Your task to perform on an android device: open app "Move to iOS" (install if not already installed), go to login, and select forgot password Image 0: 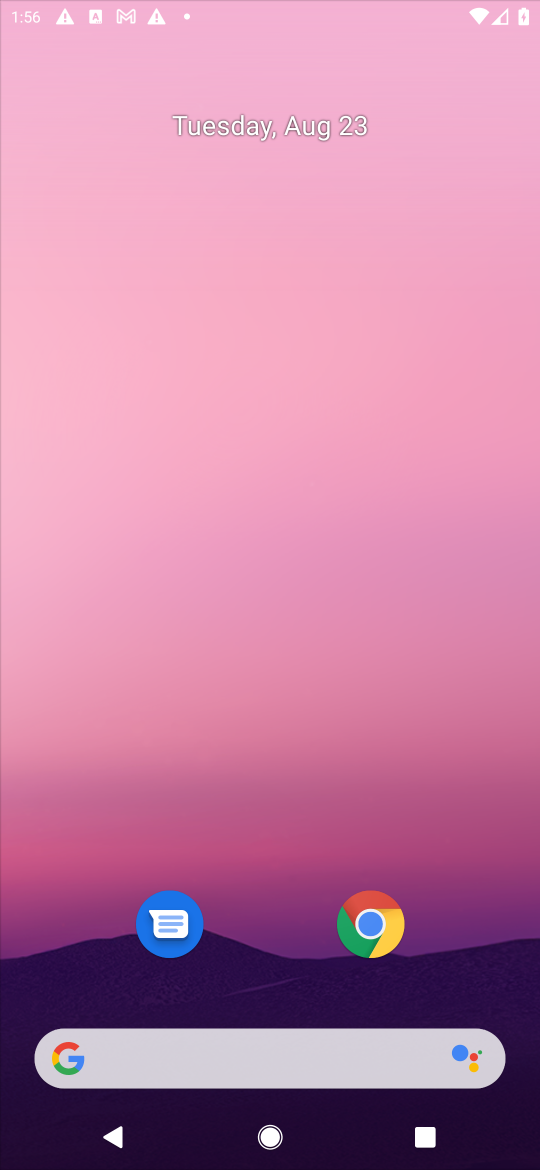
Step 0: press home button
Your task to perform on an android device: open app "Move to iOS" (install if not already installed), go to login, and select forgot password Image 1: 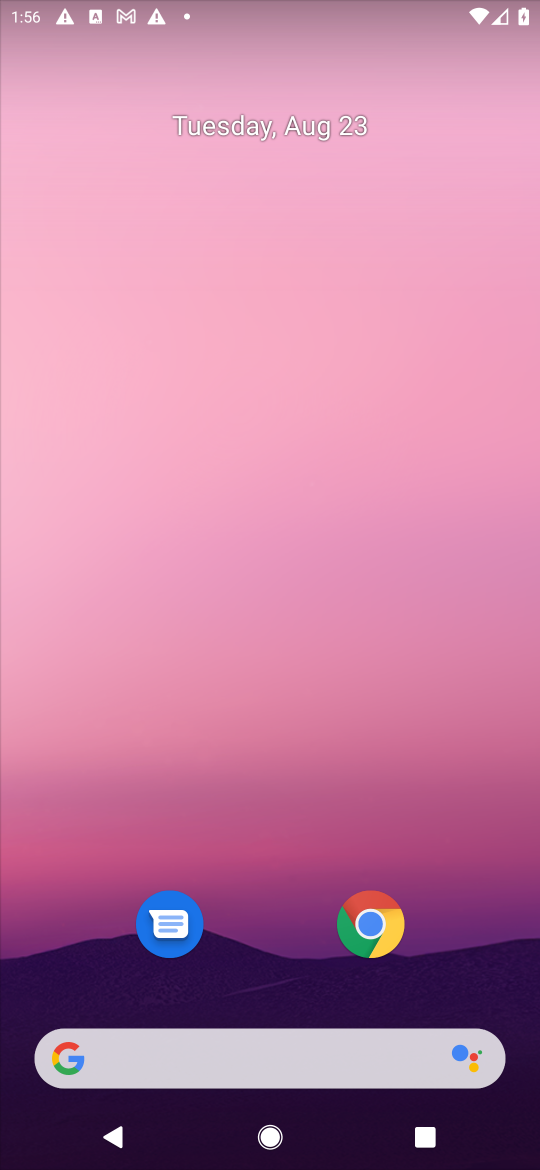
Step 1: drag from (467, 985) to (444, 149)
Your task to perform on an android device: open app "Move to iOS" (install if not already installed), go to login, and select forgot password Image 2: 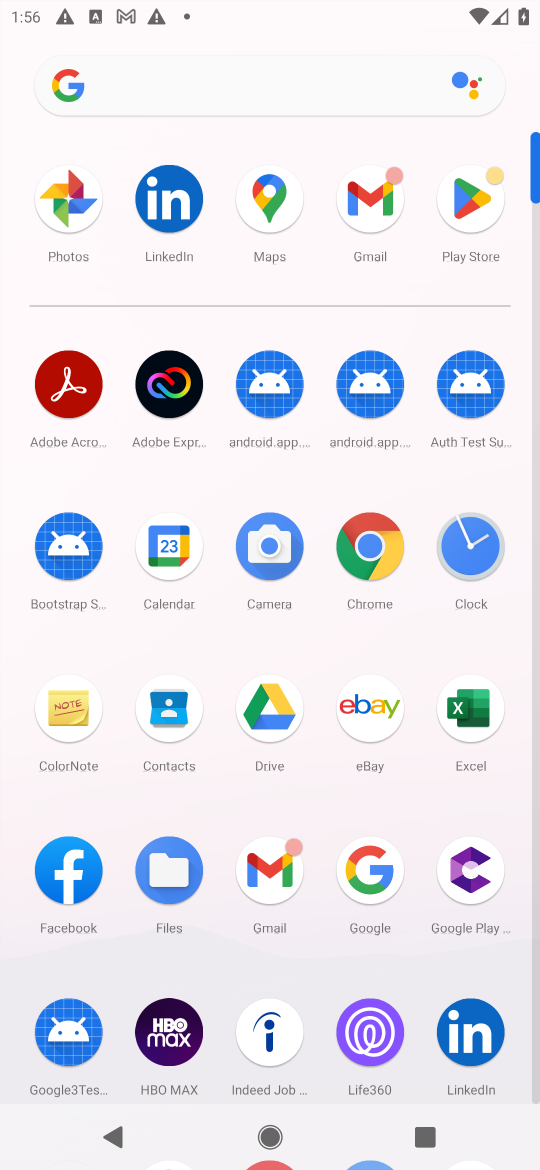
Step 2: click (477, 201)
Your task to perform on an android device: open app "Move to iOS" (install if not already installed), go to login, and select forgot password Image 3: 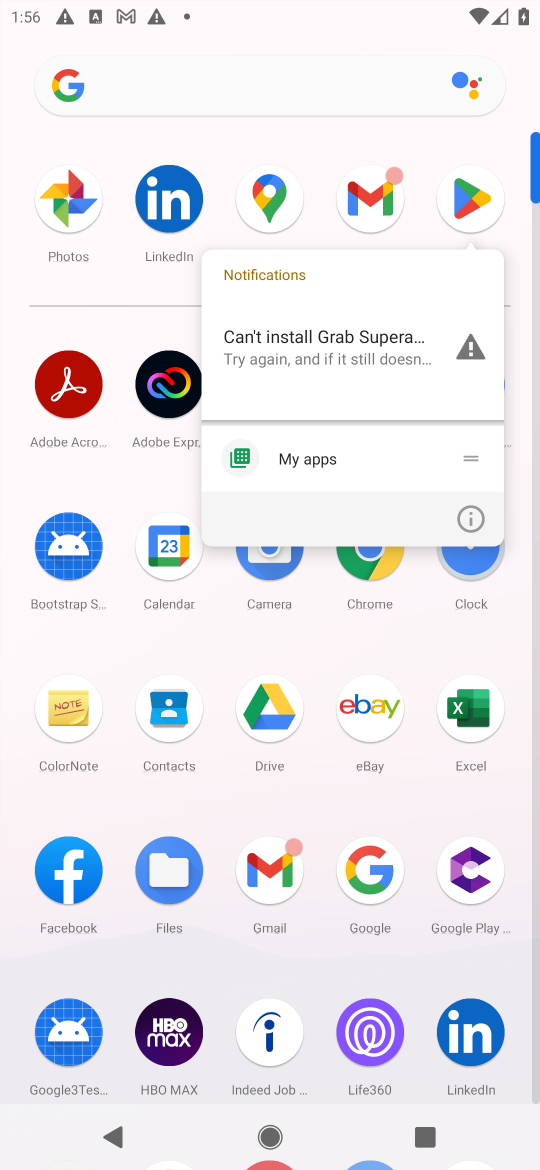
Step 3: click (463, 216)
Your task to perform on an android device: open app "Move to iOS" (install if not already installed), go to login, and select forgot password Image 4: 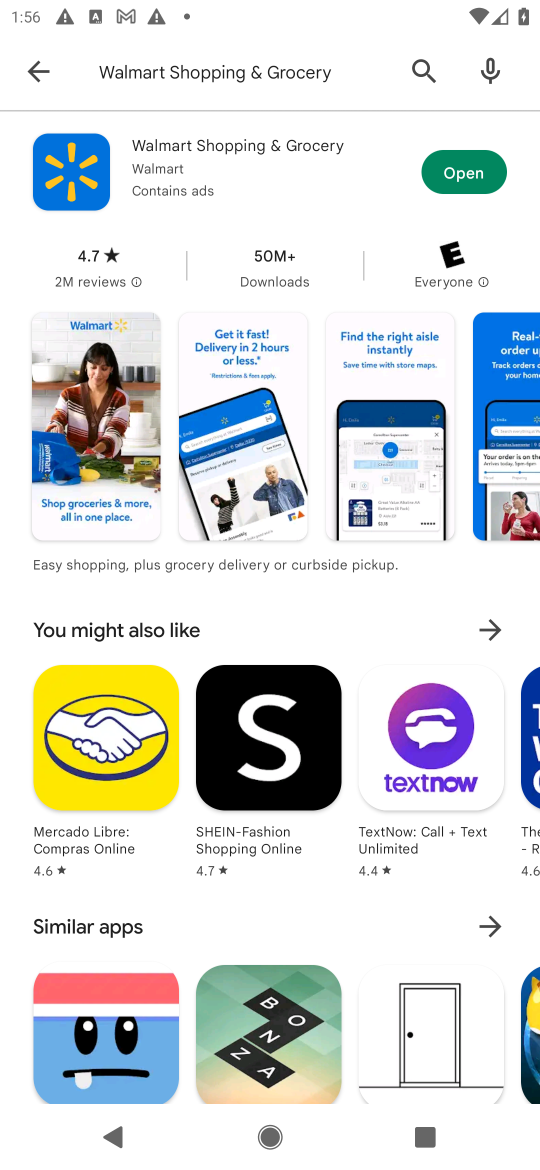
Step 4: press back button
Your task to perform on an android device: open app "Move to iOS" (install if not already installed), go to login, and select forgot password Image 5: 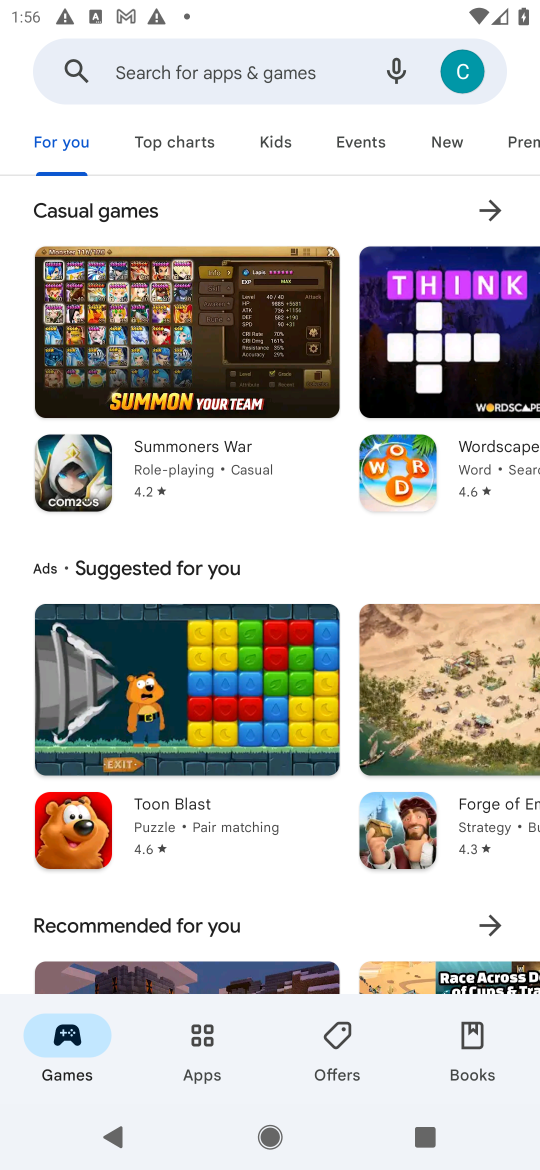
Step 5: click (233, 81)
Your task to perform on an android device: open app "Move to iOS" (install if not already installed), go to login, and select forgot password Image 6: 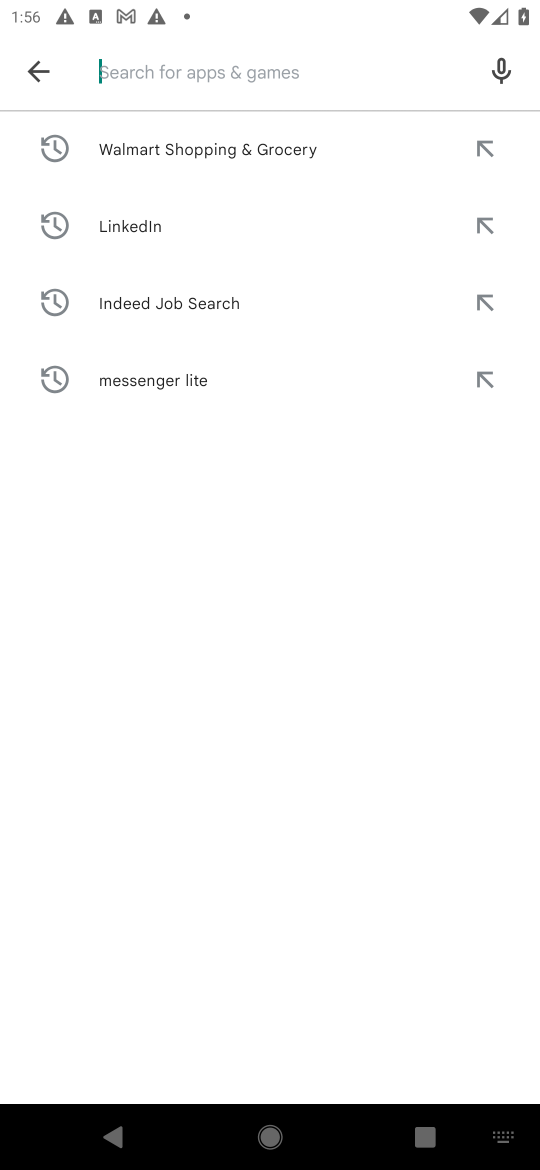
Step 6: press enter
Your task to perform on an android device: open app "Move to iOS" (install if not already installed), go to login, and select forgot password Image 7: 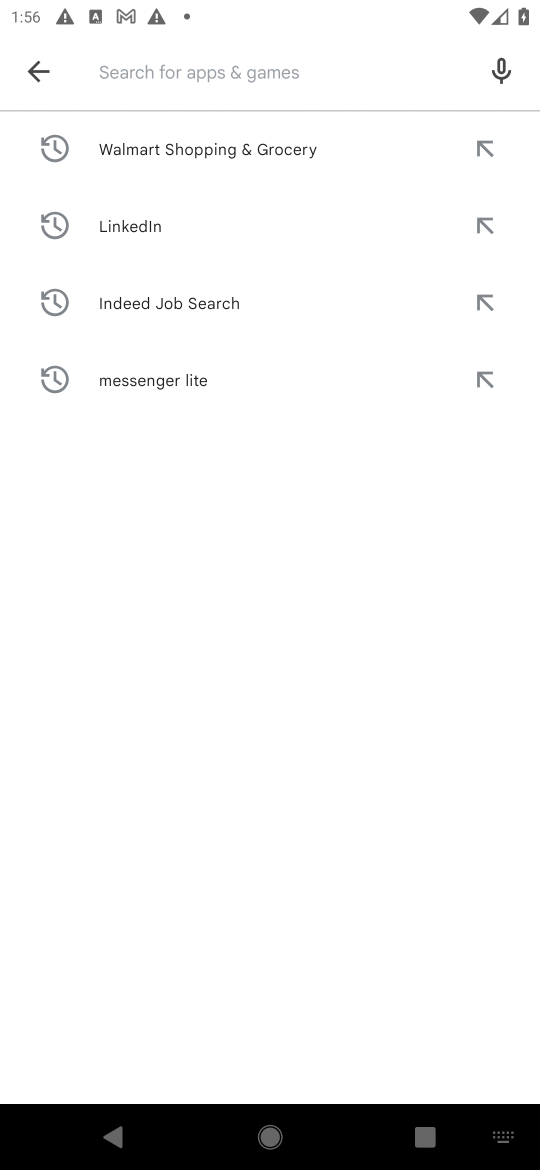
Step 7: type "move to ios"
Your task to perform on an android device: open app "Move to iOS" (install if not already installed), go to login, and select forgot password Image 8: 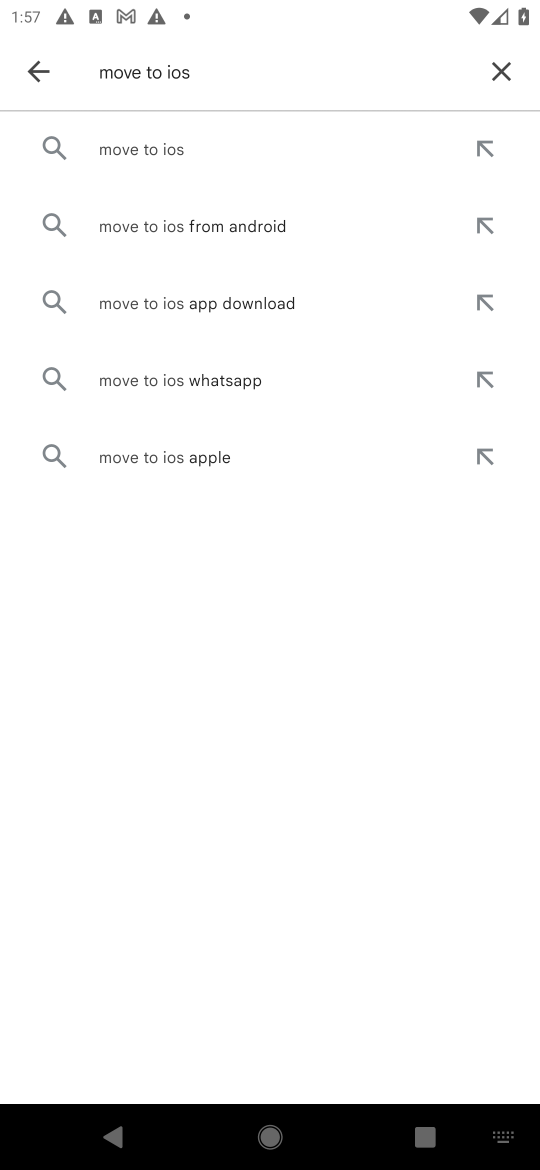
Step 8: click (162, 151)
Your task to perform on an android device: open app "Move to iOS" (install if not already installed), go to login, and select forgot password Image 9: 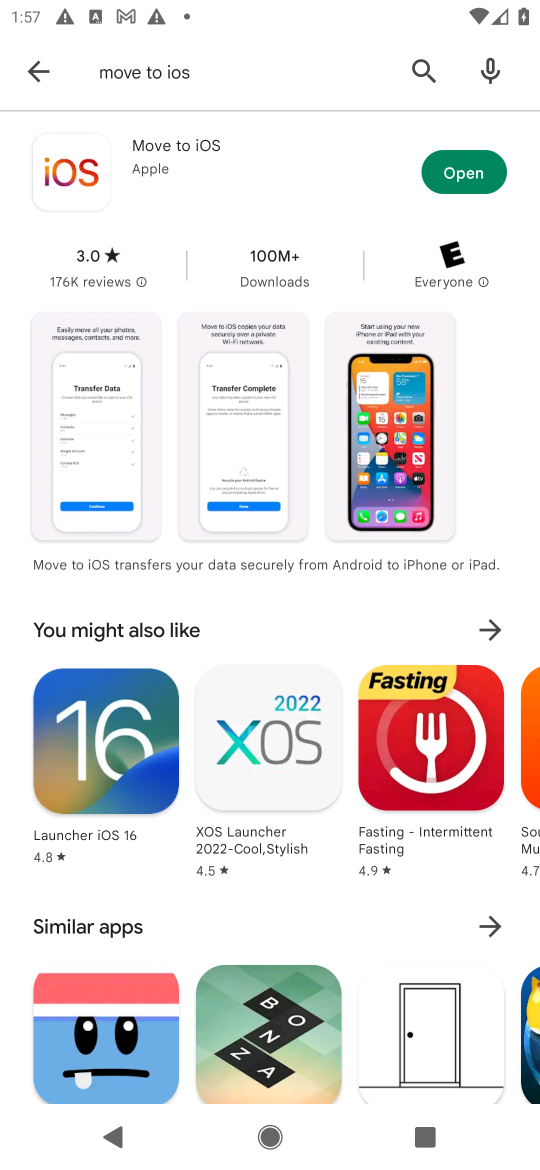
Step 9: click (444, 167)
Your task to perform on an android device: open app "Move to iOS" (install if not already installed), go to login, and select forgot password Image 10: 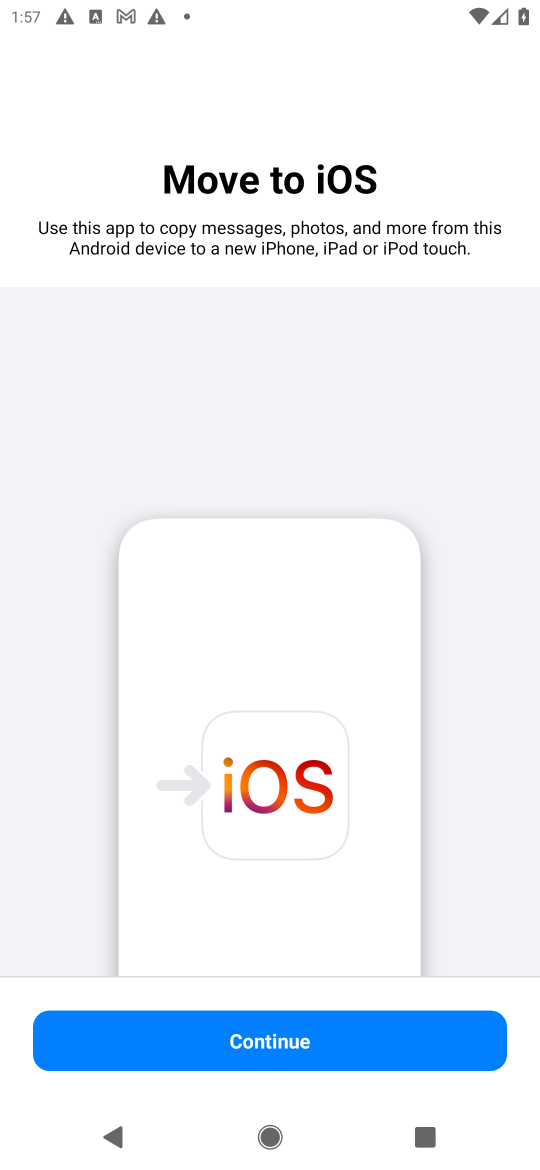
Step 10: click (363, 1041)
Your task to perform on an android device: open app "Move to iOS" (install if not already installed), go to login, and select forgot password Image 11: 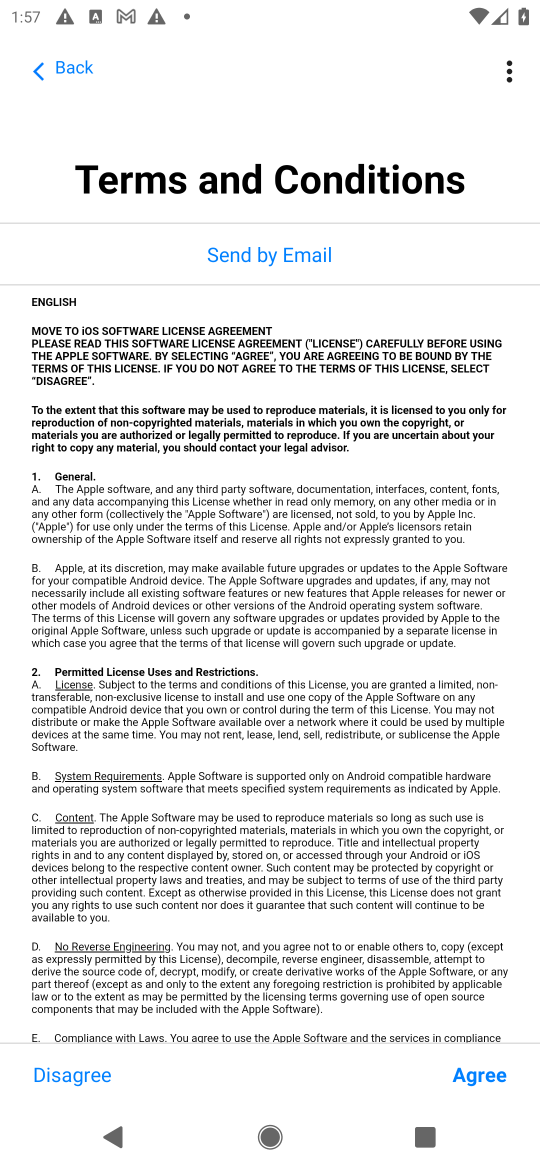
Step 11: click (487, 1081)
Your task to perform on an android device: open app "Move to iOS" (install if not already installed), go to login, and select forgot password Image 12: 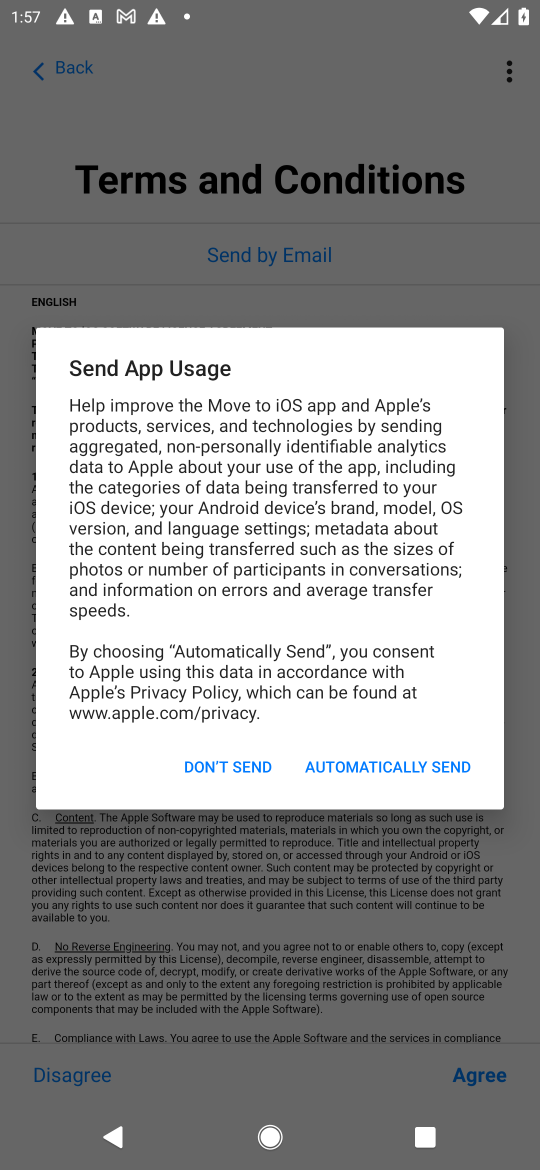
Step 12: click (237, 768)
Your task to perform on an android device: open app "Move to iOS" (install if not already installed), go to login, and select forgot password Image 13: 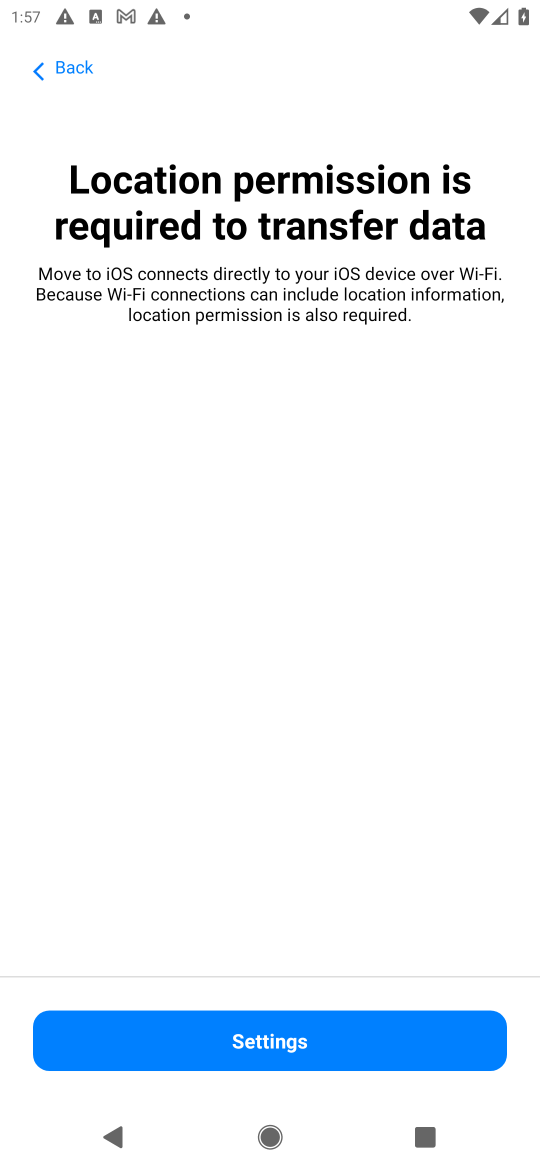
Step 13: task complete